Your task to perform on an android device: Open display settings Image 0: 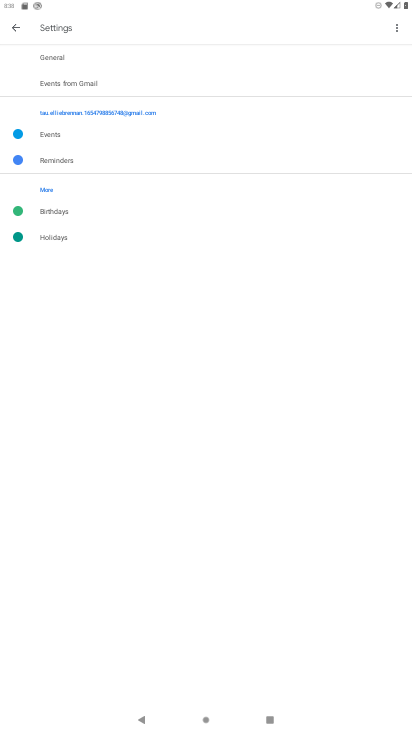
Step 0: press home button
Your task to perform on an android device: Open display settings Image 1: 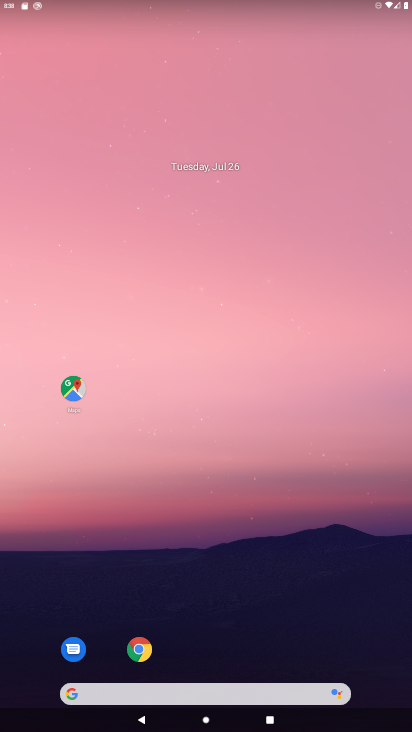
Step 1: drag from (214, 663) to (211, 253)
Your task to perform on an android device: Open display settings Image 2: 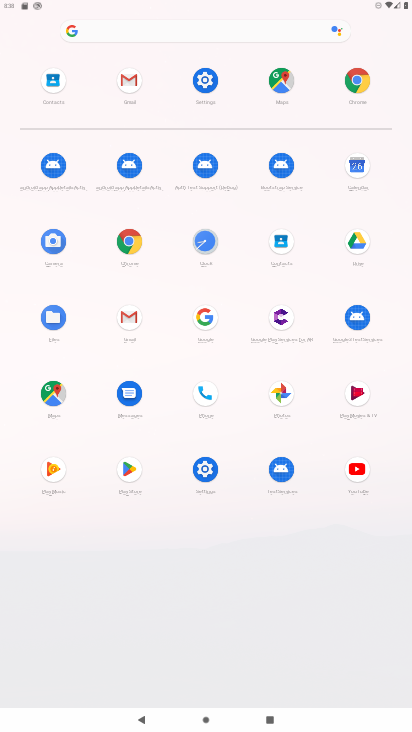
Step 2: click (210, 85)
Your task to perform on an android device: Open display settings Image 3: 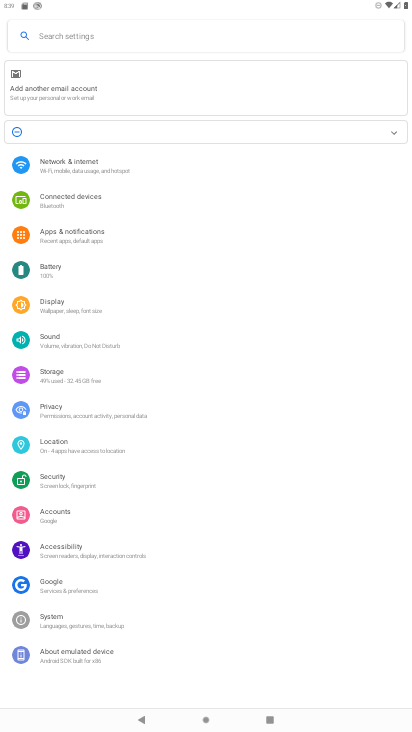
Step 3: click (48, 304)
Your task to perform on an android device: Open display settings Image 4: 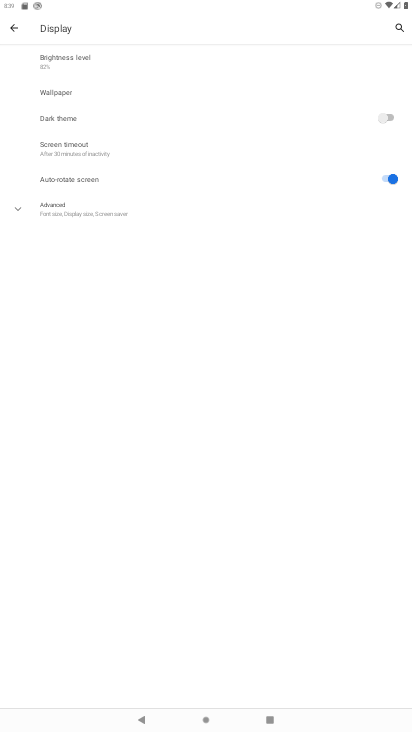
Step 4: task complete